Your task to perform on an android device: Search for 24"x36" picture frame on Home Depot. Image 0: 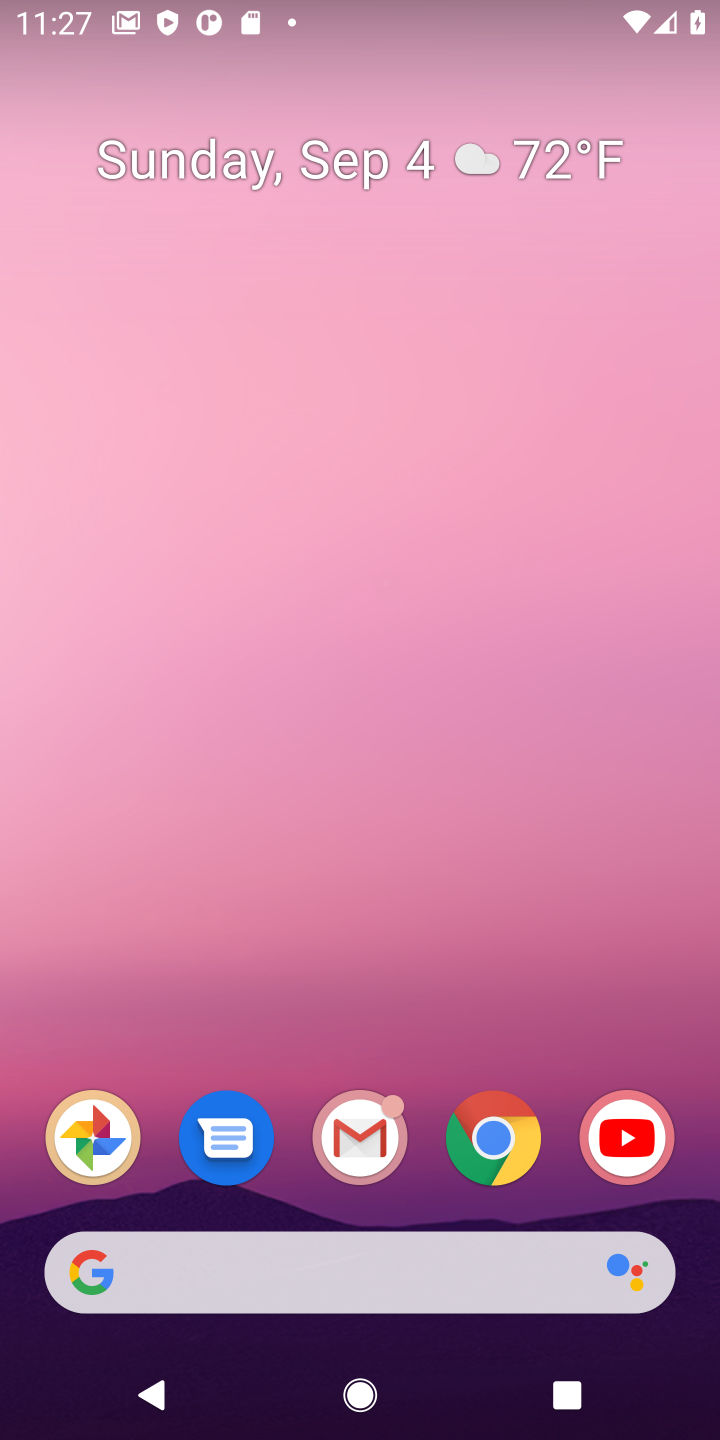
Step 0: click (503, 1114)
Your task to perform on an android device: Search for 24"x36" picture frame on Home Depot. Image 1: 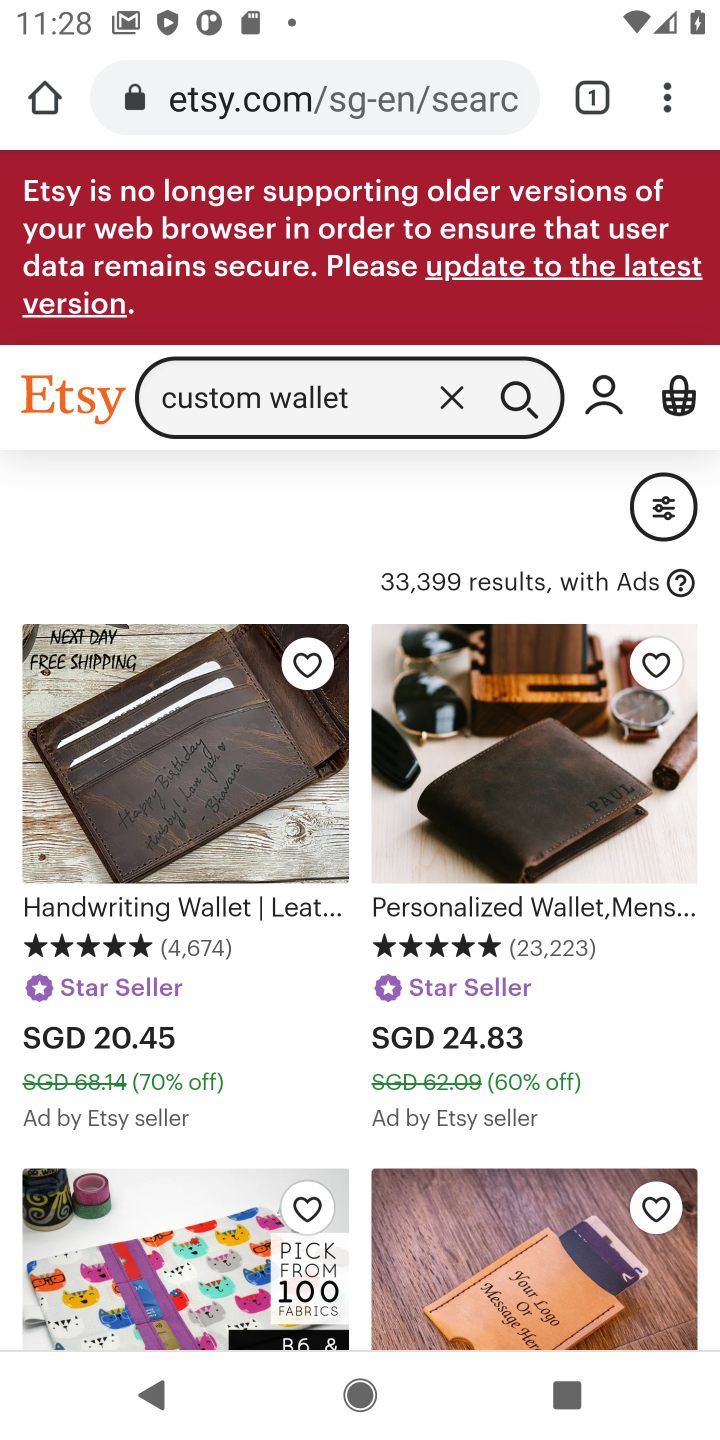
Step 1: click (327, 118)
Your task to perform on an android device: Search for 24"x36" picture frame on Home Depot. Image 2: 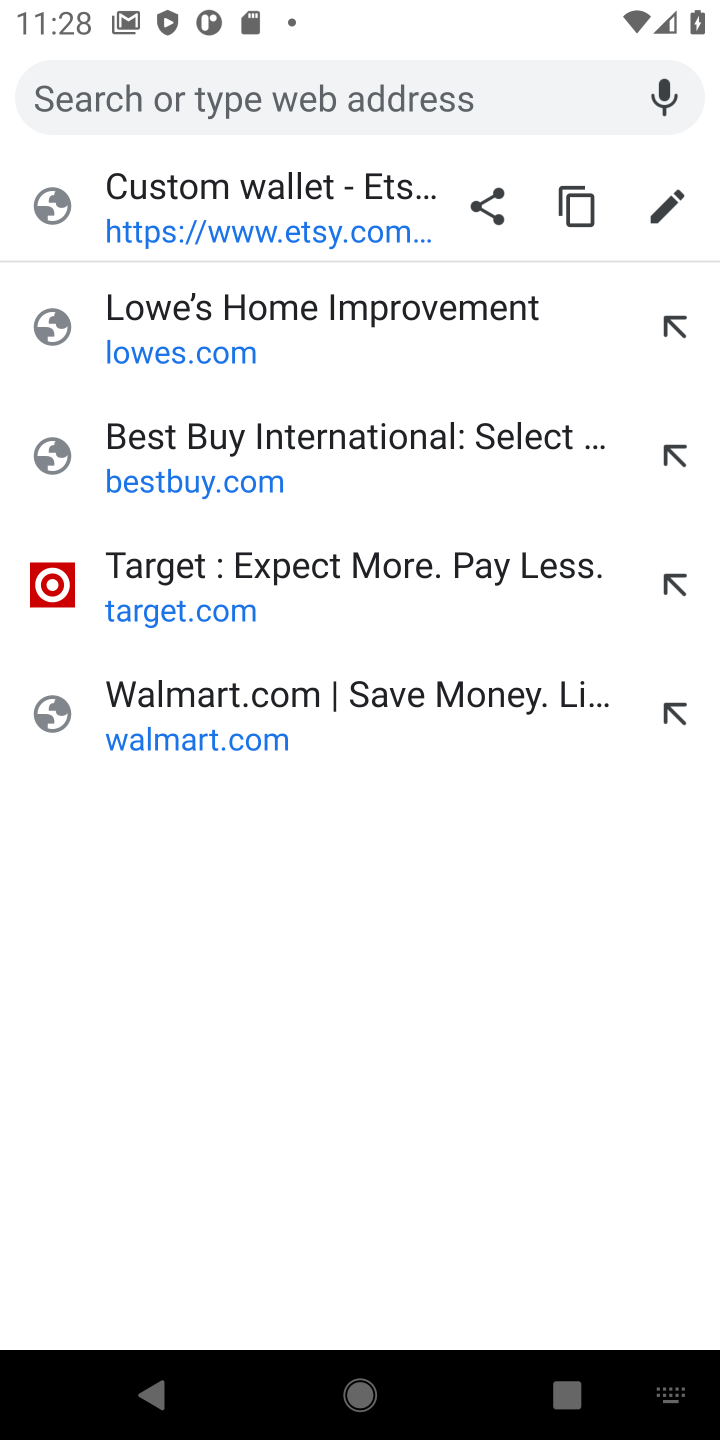
Step 2: type "home depot"
Your task to perform on an android device: Search for 24"x36" picture frame on Home Depot. Image 3: 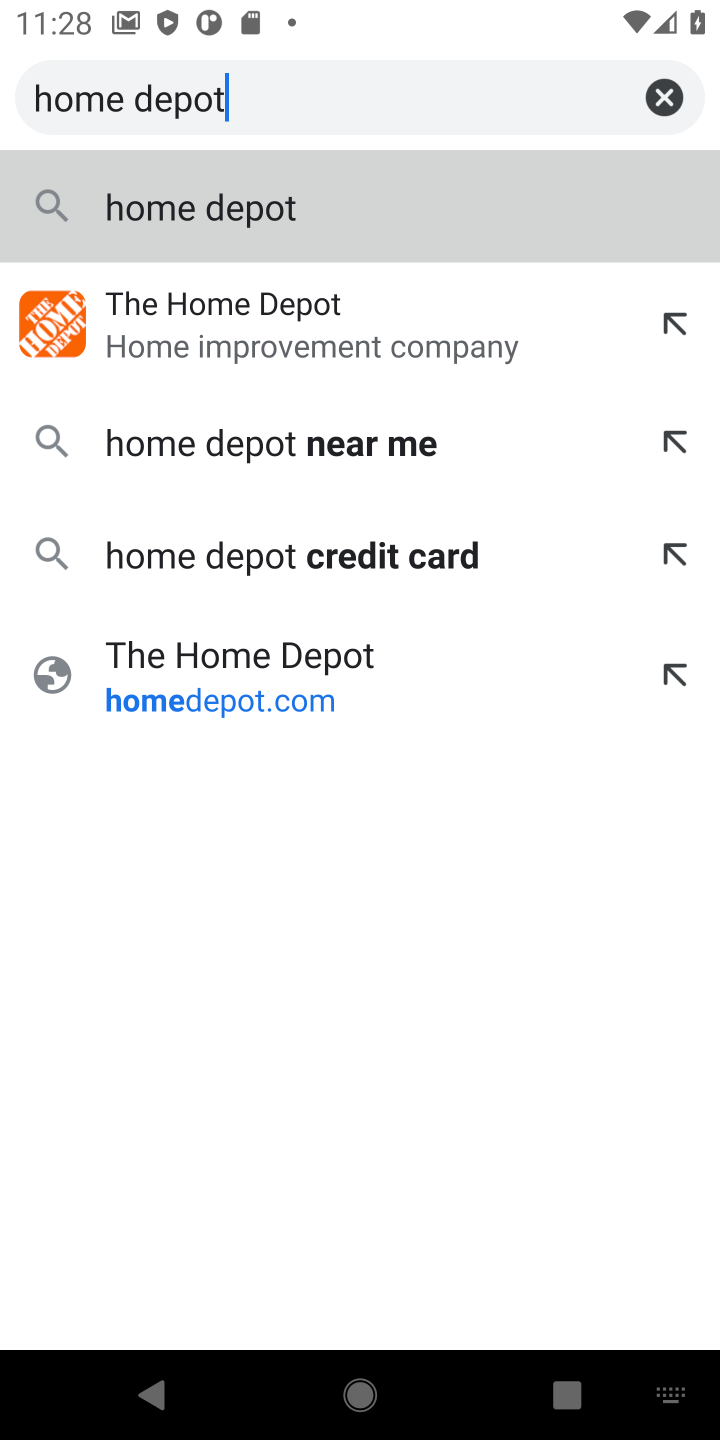
Step 3: click (389, 691)
Your task to perform on an android device: Search for 24"x36" picture frame on Home Depot. Image 4: 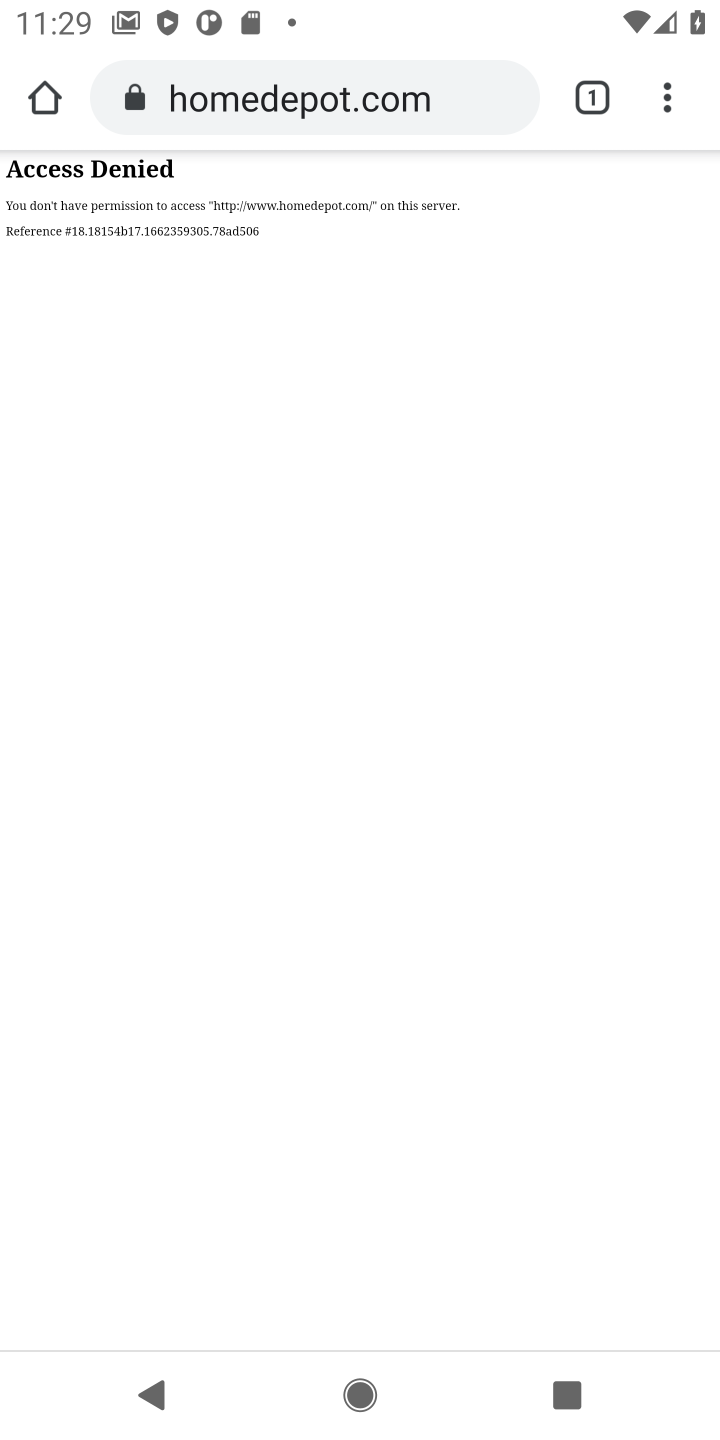
Step 4: task complete